Your task to perform on an android device: delete a single message in the gmail app Image 0: 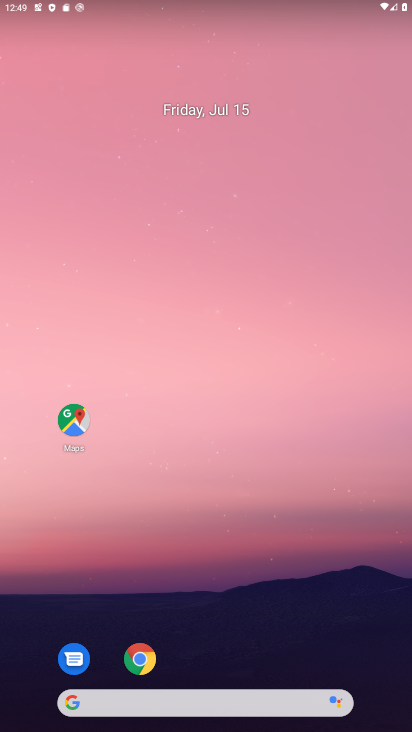
Step 0: drag from (198, 649) to (259, 249)
Your task to perform on an android device: delete a single message in the gmail app Image 1: 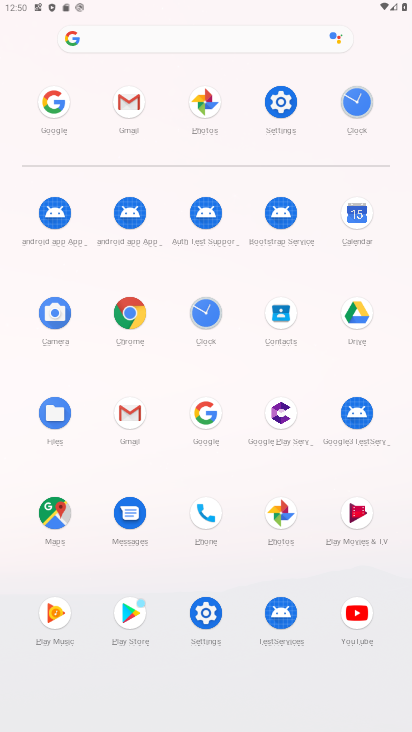
Step 1: click (123, 118)
Your task to perform on an android device: delete a single message in the gmail app Image 2: 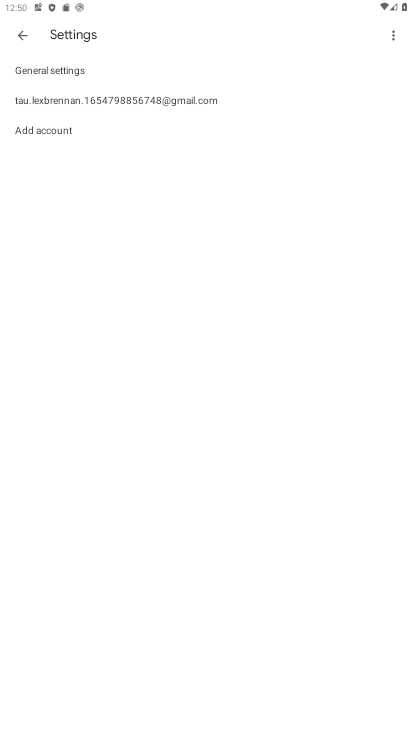
Step 2: click (25, 47)
Your task to perform on an android device: delete a single message in the gmail app Image 3: 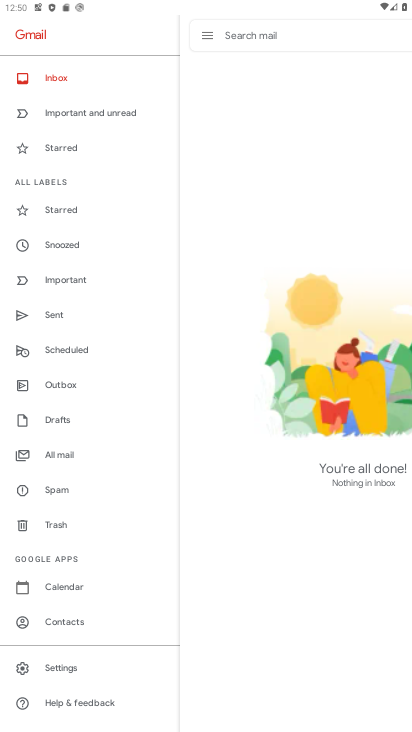
Step 3: task complete